Your task to perform on an android device: Open internet settings Image 0: 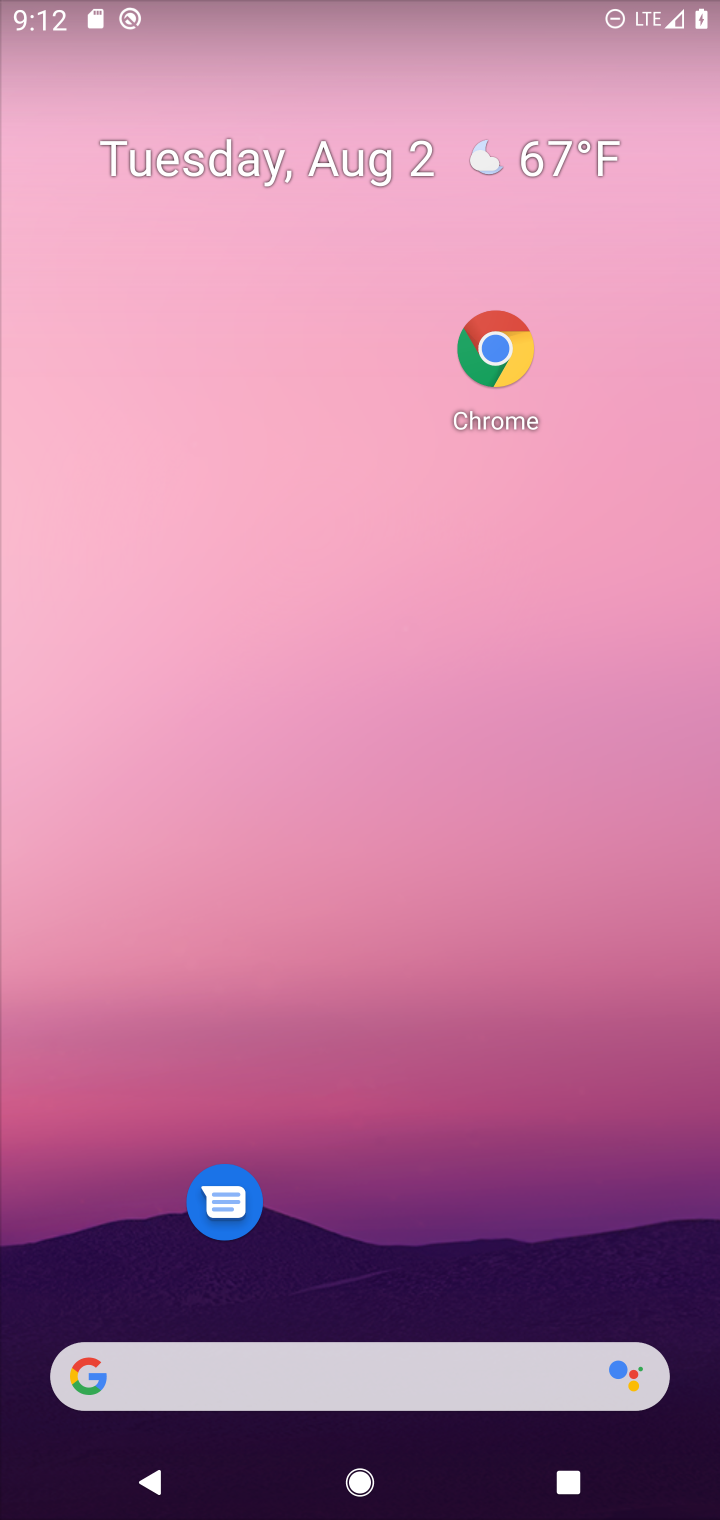
Step 0: drag from (382, 1208) to (411, 32)
Your task to perform on an android device: Open internet settings Image 1: 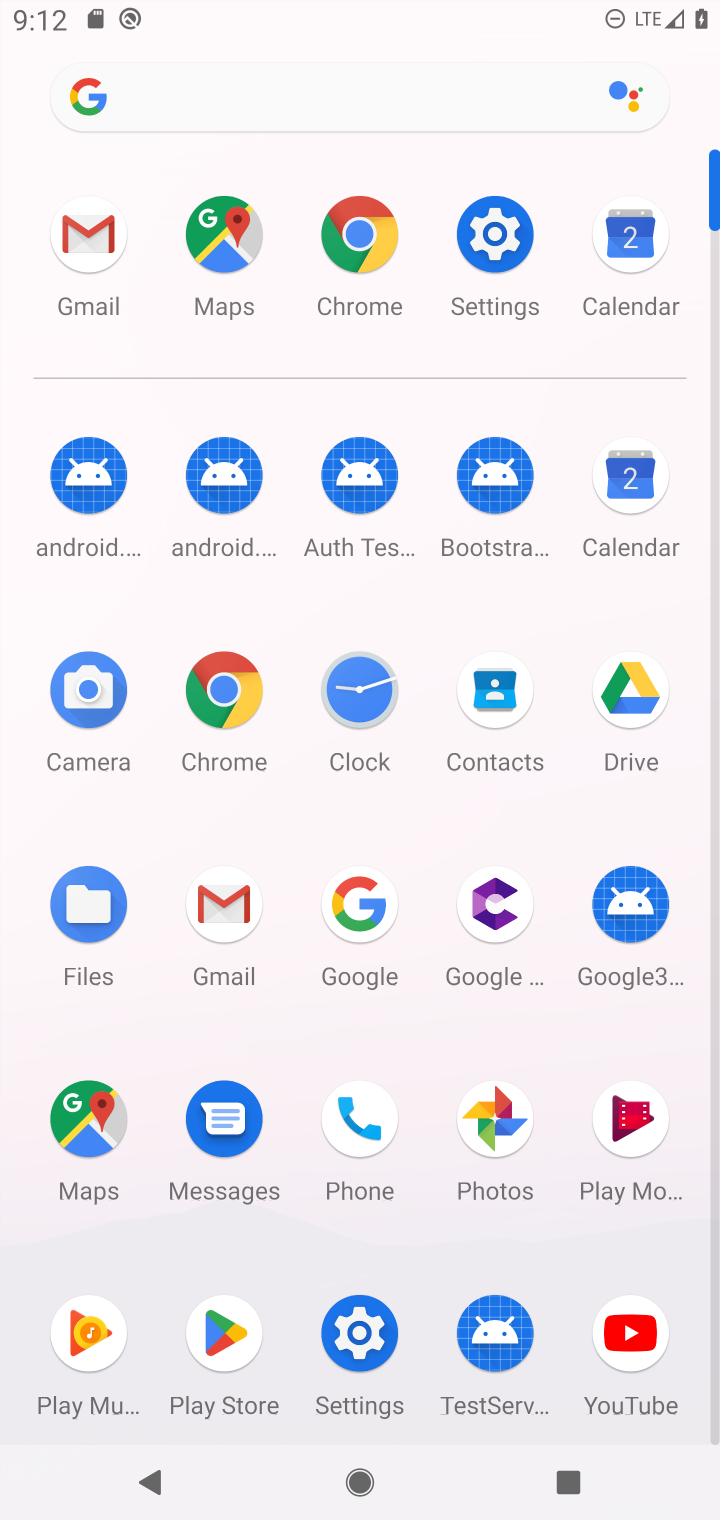
Step 1: click (474, 241)
Your task to perform on an android device: Open internet settings Image 2: 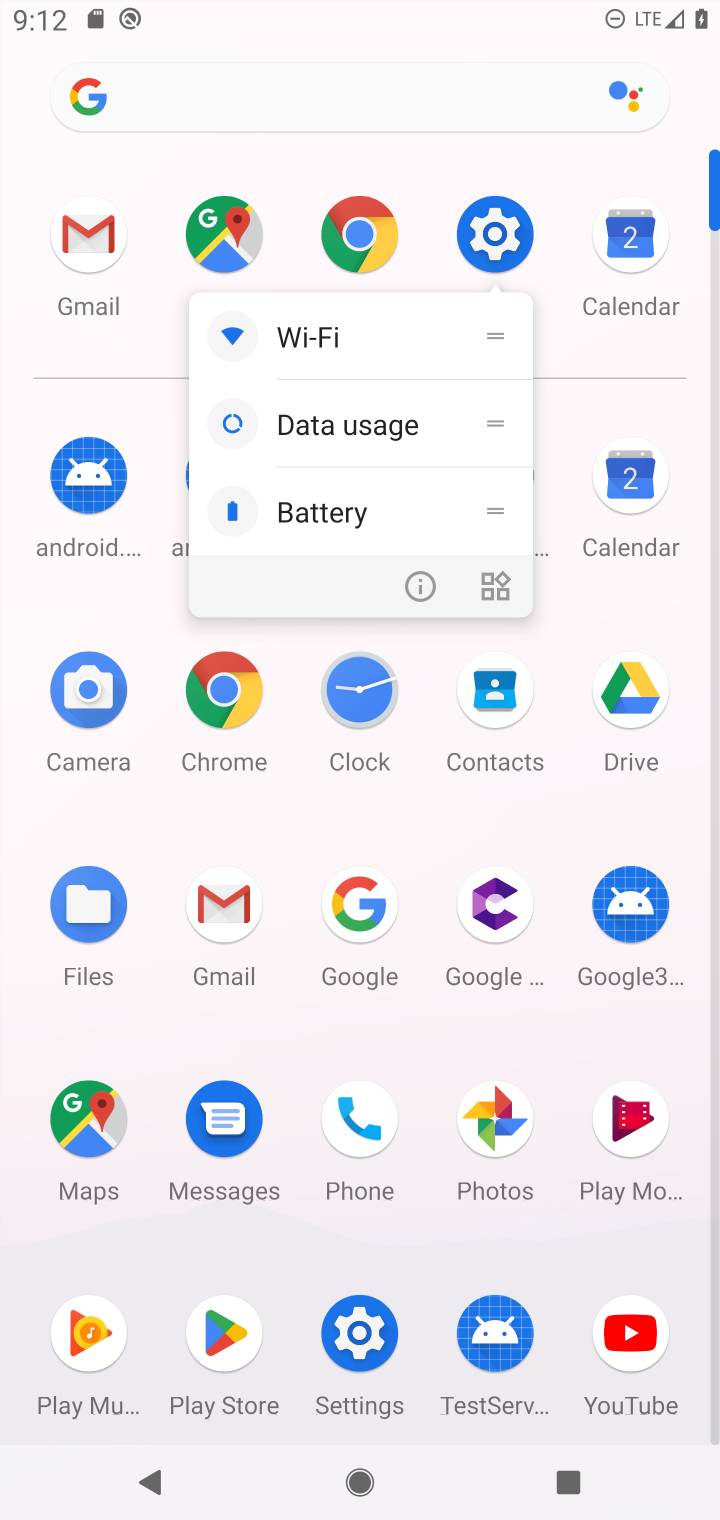
Step 2: click (483, 237)
Your task to perform on an android device: Open internet settings Image 3: 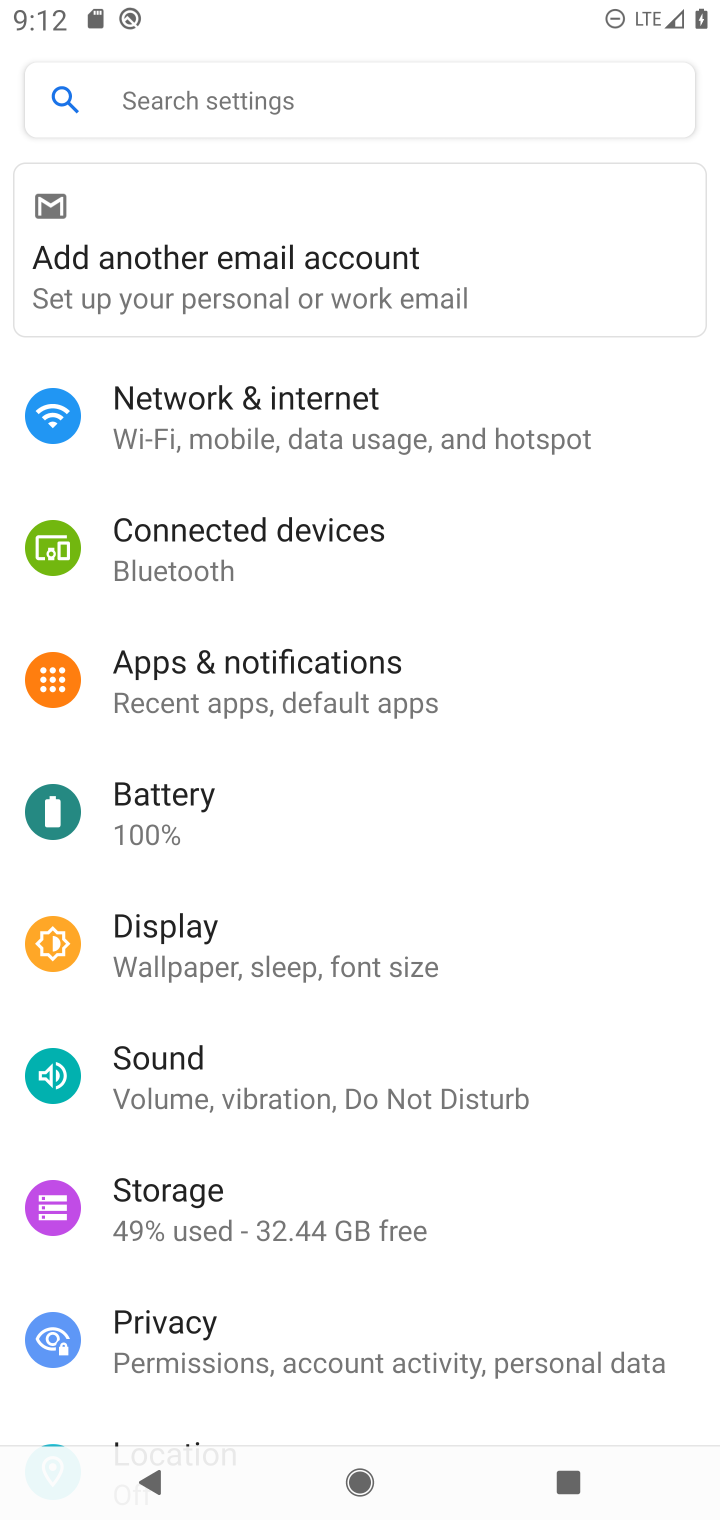
Step 3: click (253, 417)
Your task to perform on an android device: Open internet settings Image 4: 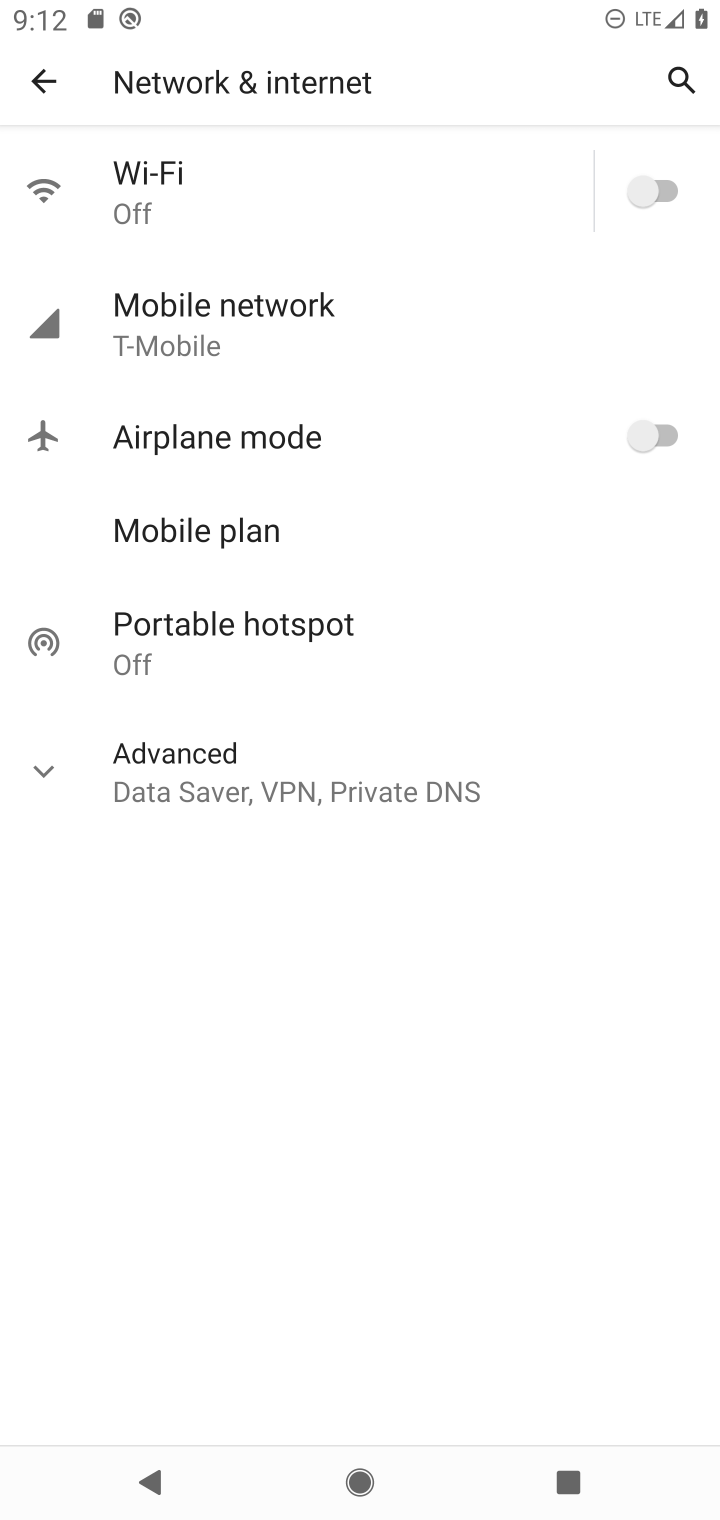
Step 4: click (50, 783)
Your task to perform on an android device: Open internet settings Image 5: 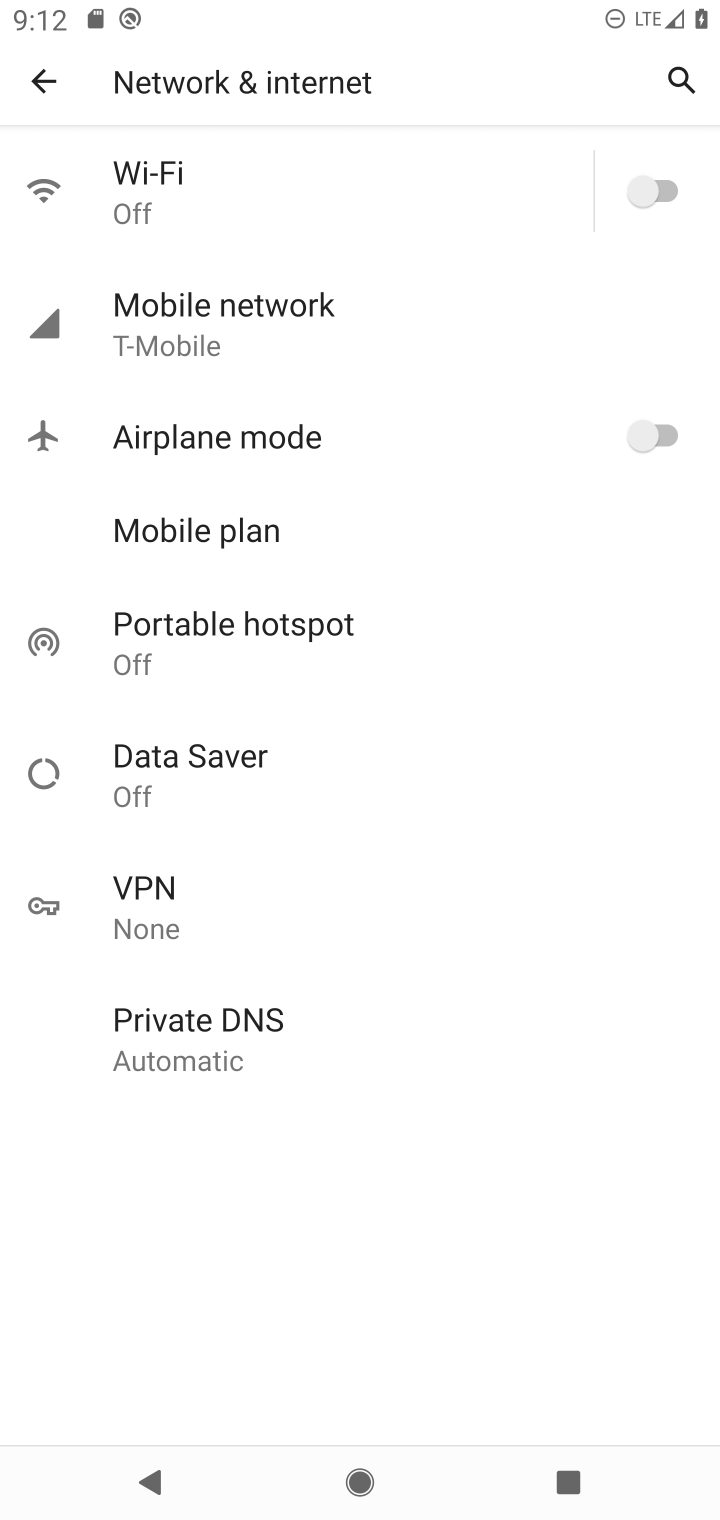
Step 5: task complete